Your task to perform on an android device: check data usage Image 0: 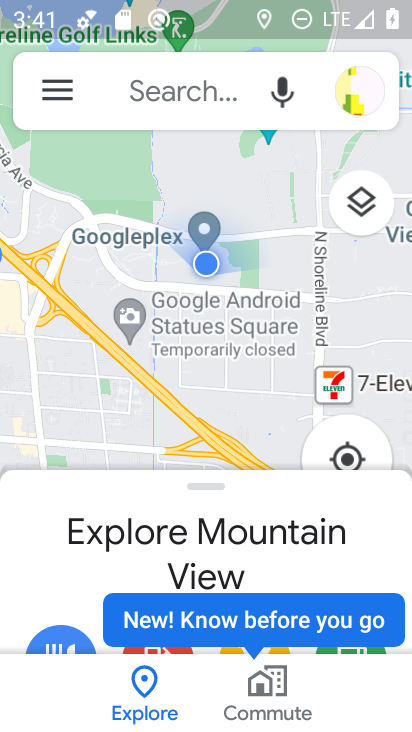
Step 0: press home button
Your task to perform on an android device: check data usage Image 1: 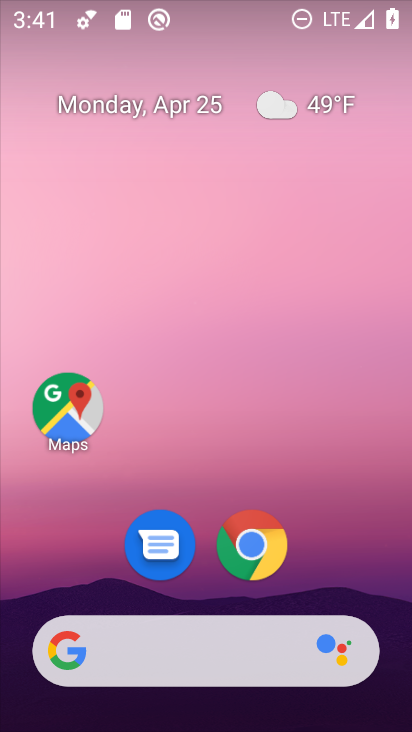
Step 1: drag from (322, 522) to (203, 38)
Your task to perform on an android device: check data usage Image 2: 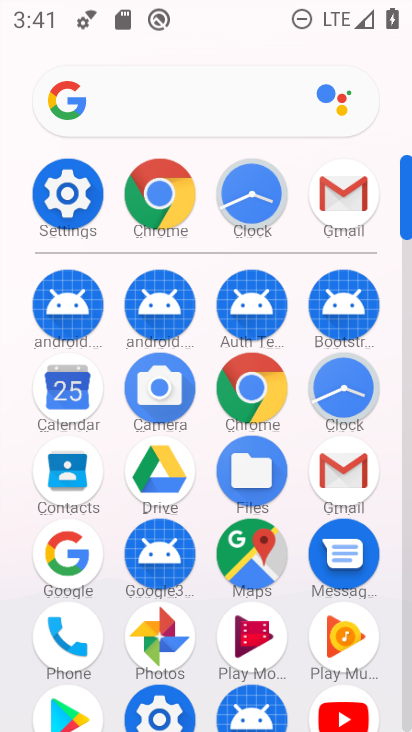
Step 2: click (62, 202)
Your task to perform on an android device: check data usage Image 3: 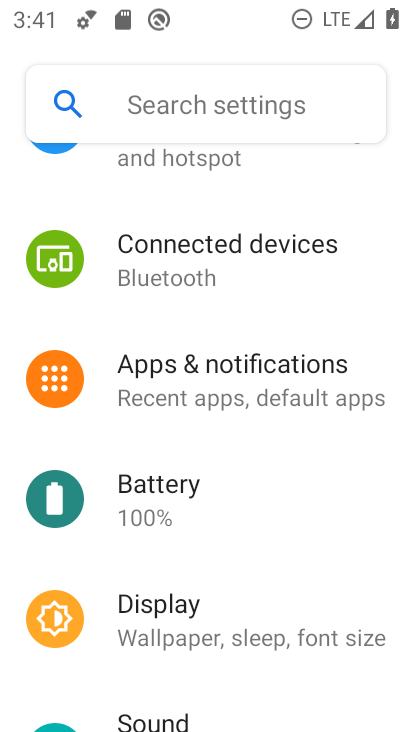
Step 3: drag from (241, 191) to (257, 517)
Your task to perform on an android device: check data usage Image 4: 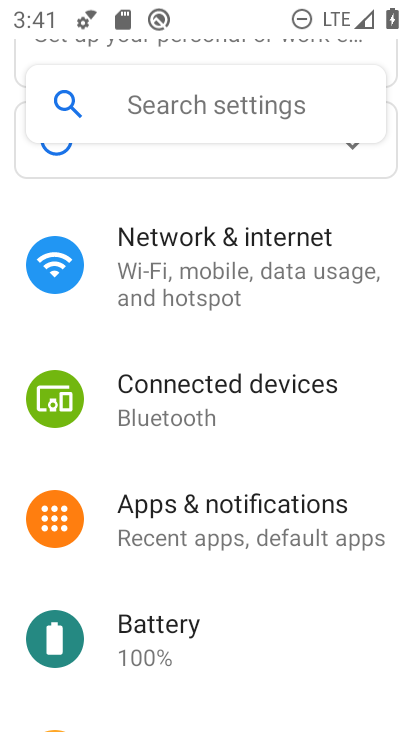
Step 4: click (229, 243)
Your task to perform on an android device: check data usage Image 5: 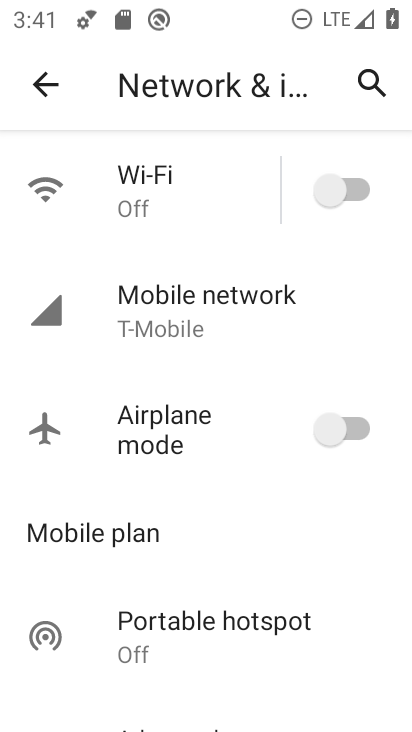
Step 5: click (249, 317)
Your task to perform on an android device: check data usage Image 6: 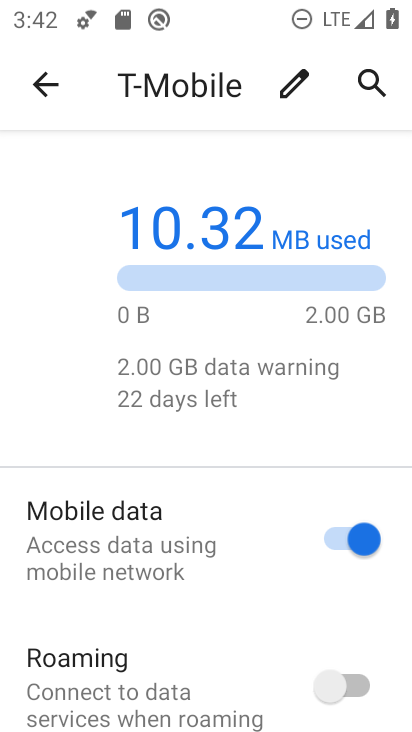
Step 6: task complete